Your task to perform on an android device: turn on wifi Image 0: 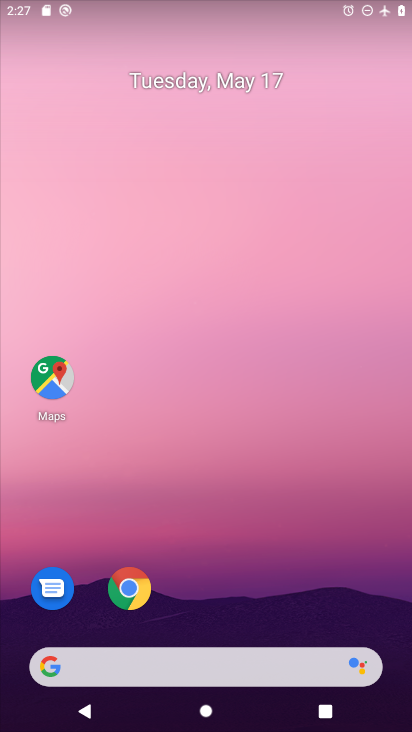
Step 0: drag from (191, 598) to (75, 196)
Your task to perform on an android device: turn on wifi Image 1: 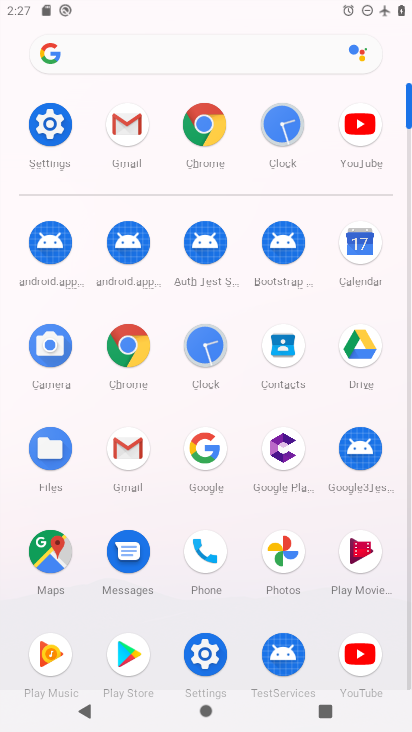
Step 1: click (56, 137)
Your task to perform on an android device: turn on wifi Image 2: 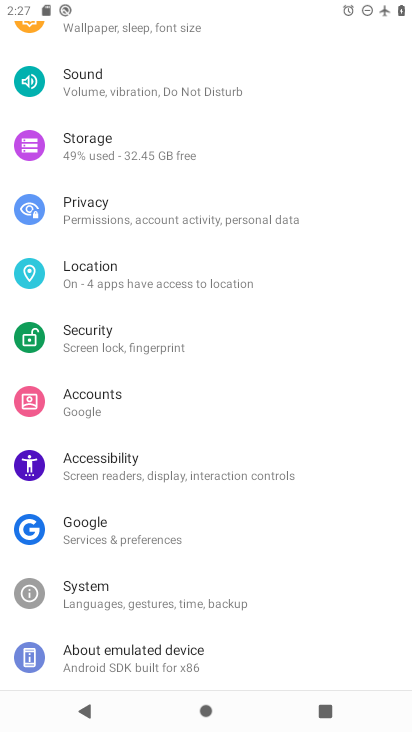
Step 2: drag from (257, 90) to (169, 591)
Your task to perform on an android device: turn on wifi Image 3: 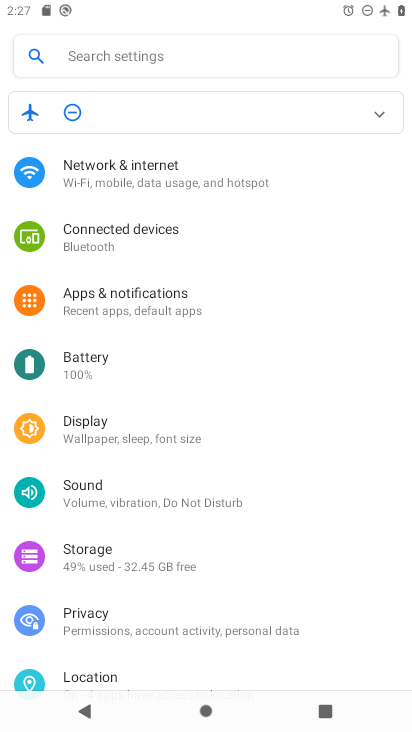
Step 3: click (121, 180)
Your task to perform on an android device: turn on wifi Image 4: 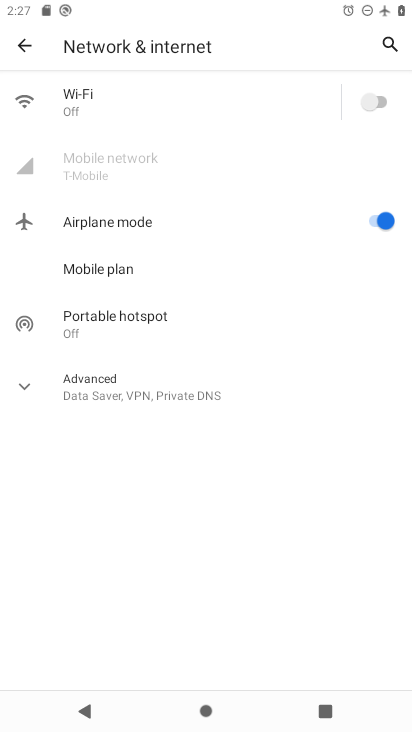
Step 4: click (380, 104)
Your task to perform on an android device: turn on wifi Image 5: 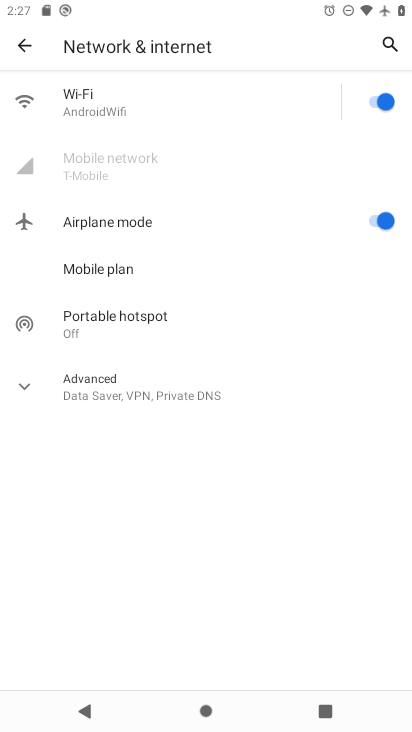
Step 5: task complete